Your task to perform on an android device: What is the news today? Image 0: 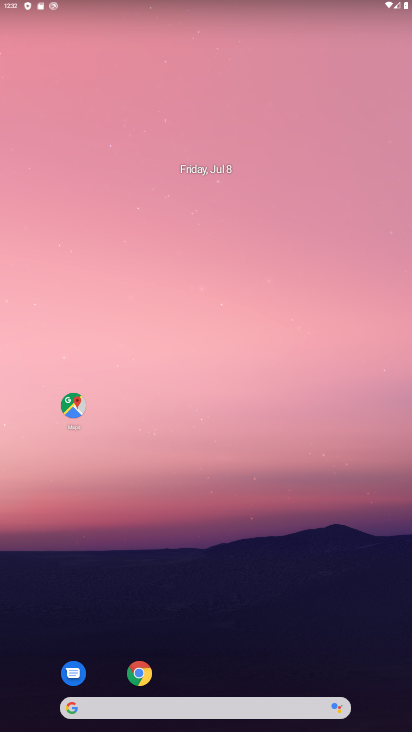
Step 0: drag from (188, 651) to (252, 107)
Your task to perform on an android device: What is the news today? Image 1: 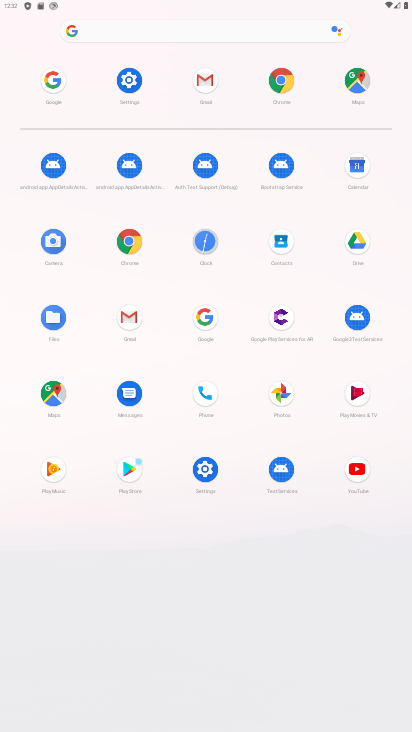
Step 1: click (203, 319)
Your task to perform on an android device: What is the news today? Image 2: 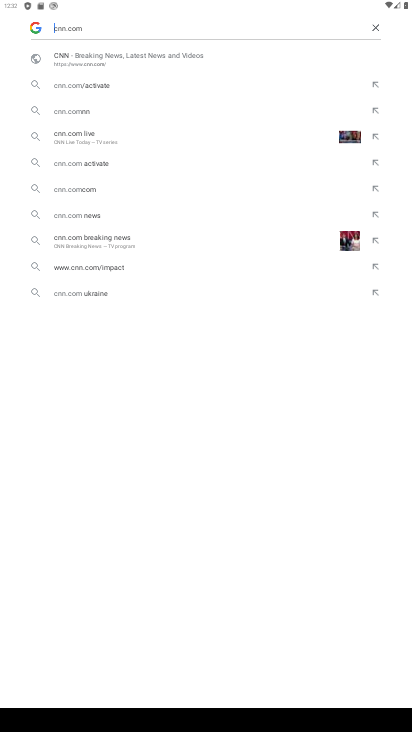
Step 2: click (199, 29)
Your task to perform on an android device: What is the news today? Image 3: 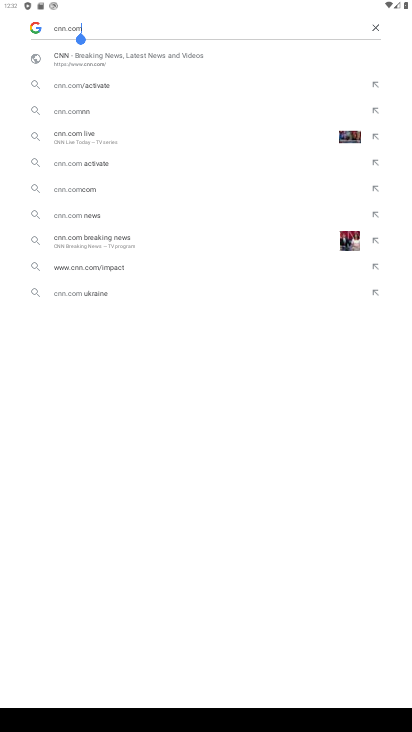
Step 3: click (378, 27)
Your task to perform on an android device: What is the news today? Image 4: 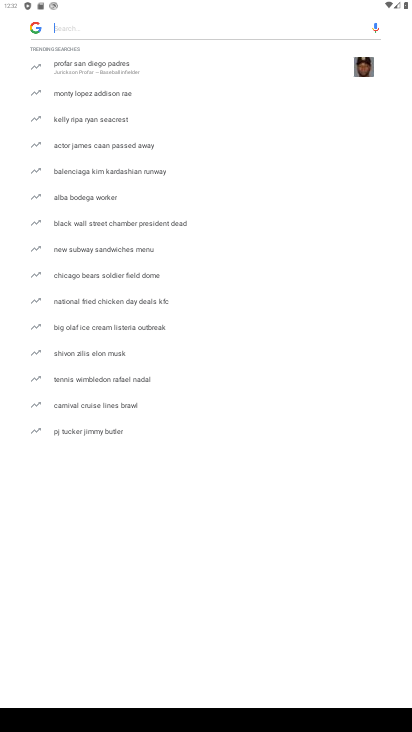
Step 4: type "news today"
Your task to perform on an android device: What is the news today? Image 5: 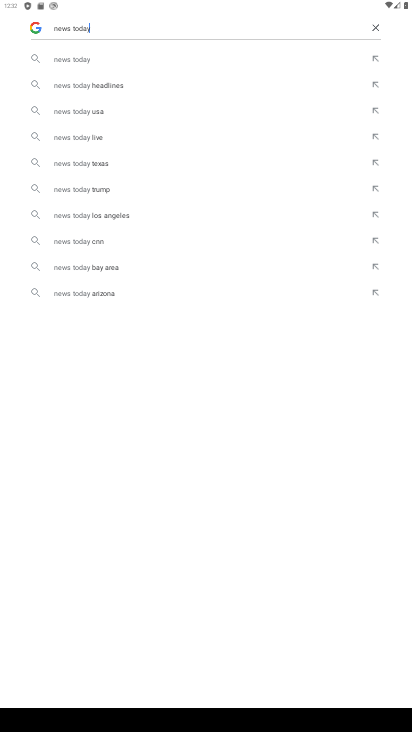
Step 5: click (93, 61)
Your task to perform on an android device: What is the news today? Image 6: 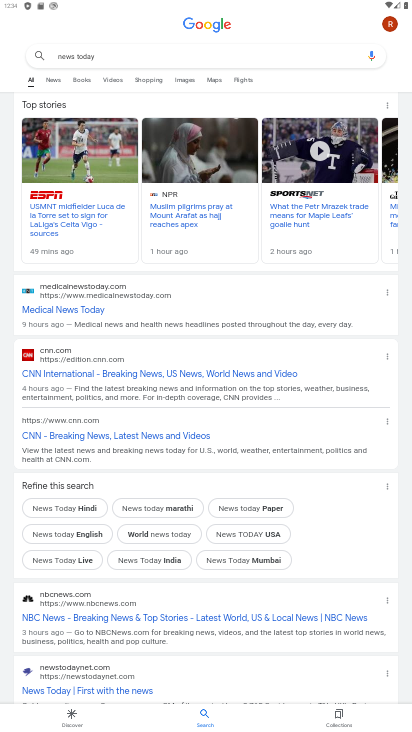
Step 6: task complete